Your task to perform on an android device: move a message to another label in the gmail app Image 0: 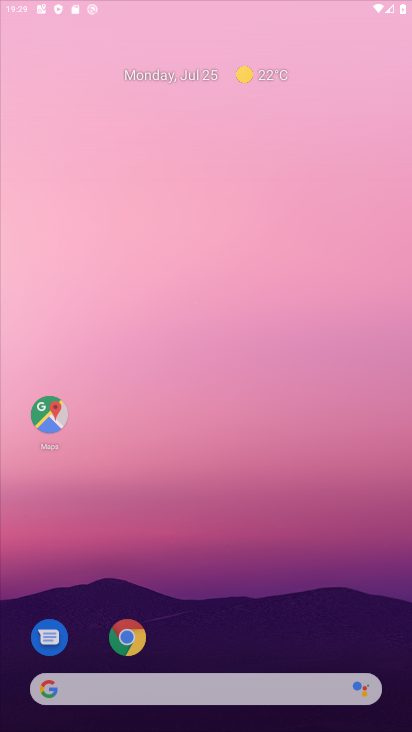
Step 0: press home button
Your task to perform on an android device: move a message to another label in the gmail app Image 1: 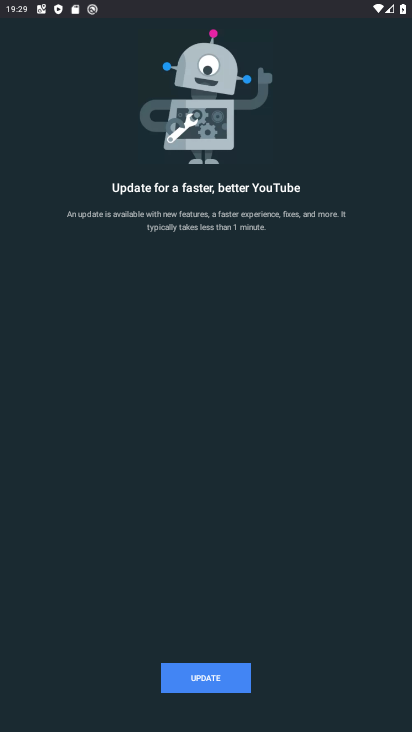
Step 1: click (211, 97)
Your task to perform on an android device: move a message to another label in the gmail app Image 2: 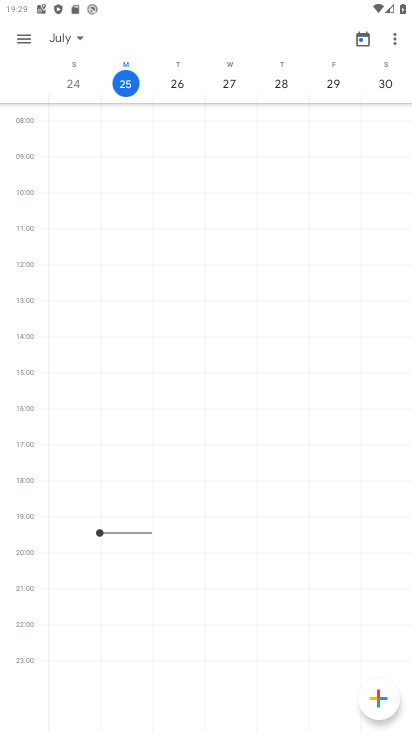
Step 2: press home button
Your task to perform on an android device: move a message to another label in the gmail app Image 3: 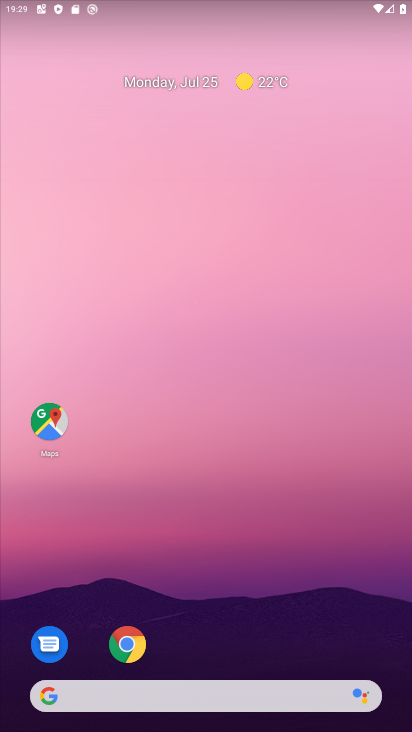
Step 3: drag from (254, 655) to (263, 0)
Your task to perform on an android device: move a message to another label in the gmail app Image 4: 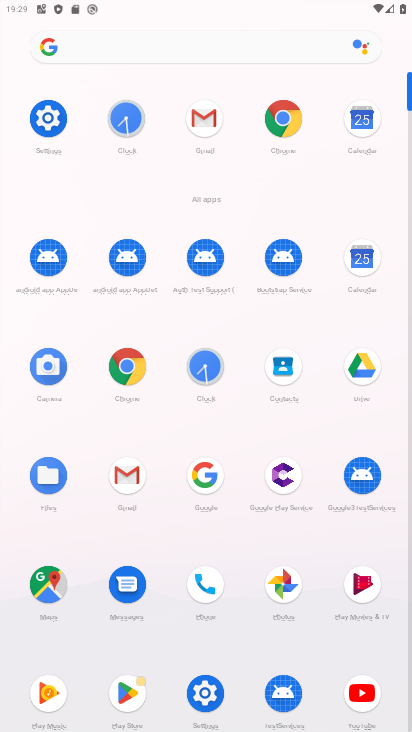
Step 4: click (123, 475)
Your task to perform on an android device: move a message to another label in the gmail app Image 5: 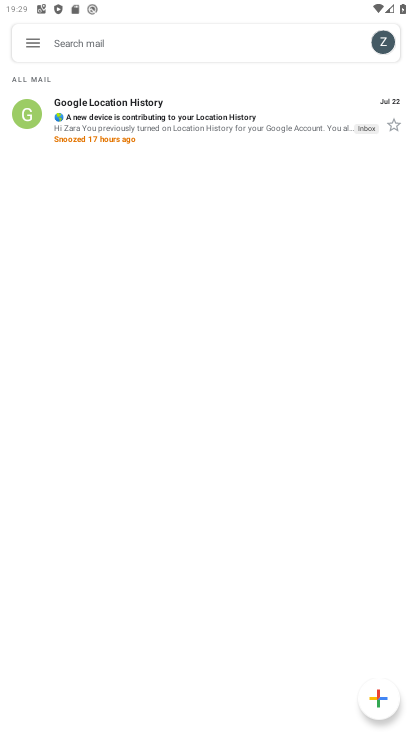
Step 5: click (23, 111)
Your task to perform on an android device: move a message to another label in the gmail app Image 6: 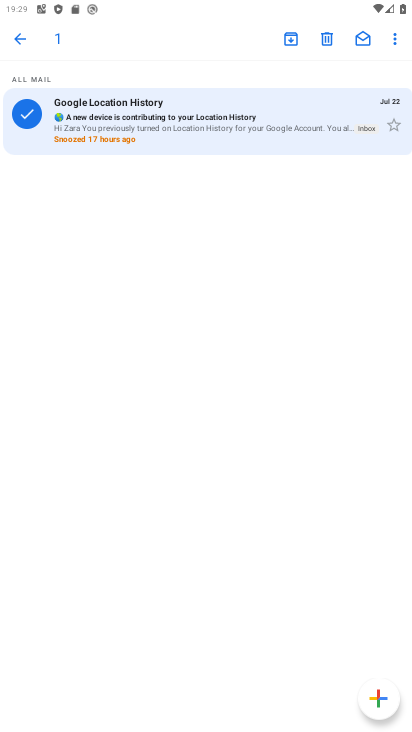
Step 6: click (394, 35)
Your task to perform on an android device: move a message to another label in the gmail app Image 7: 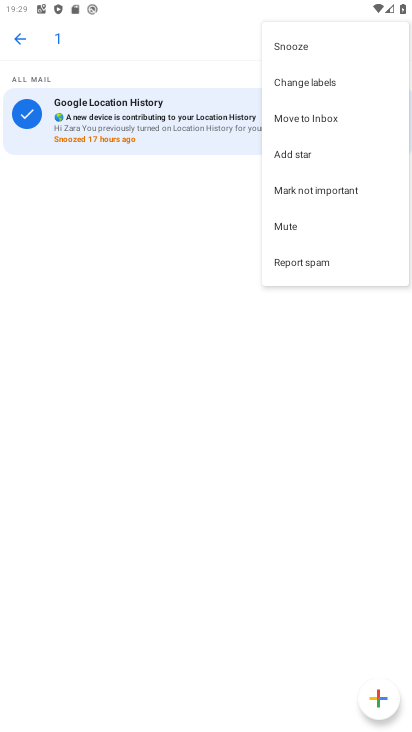
Step 7: click (343, 113)
Your task to perform on an android device: move a message to another label in the gmail app Image 8: 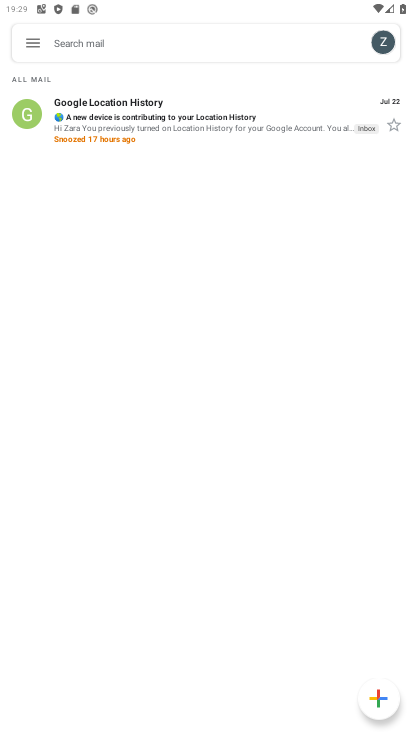
Step 8: task complete